Your task to perform on an android device: Open settings on Google Maps Image 0: 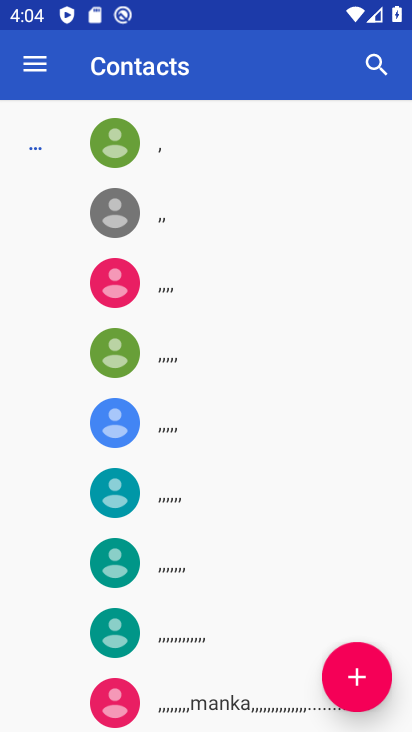
Step 0: press home button
Your task to perform on an android device: Open settings on Google Maps Image 1: 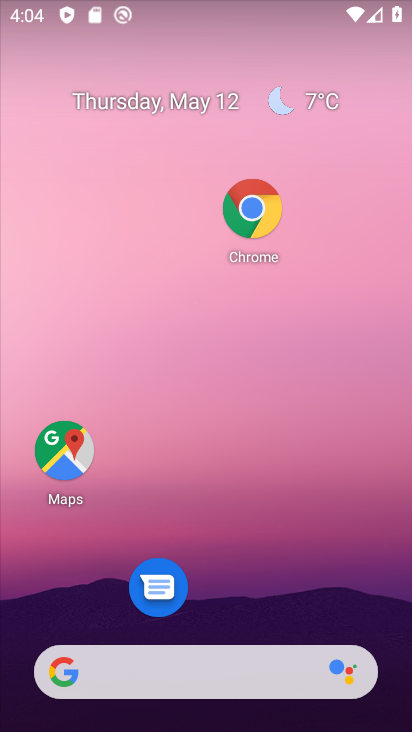
Step 1: click (74, 467)
Your task to perform on an android device: Open settings on Google Maps Image 2: 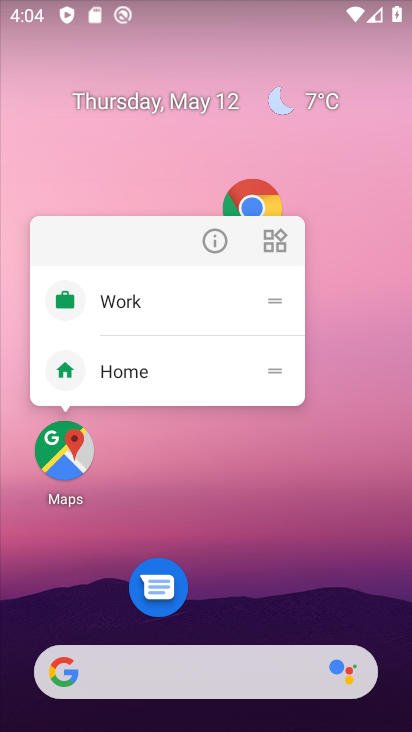
Step 2: click (67, 467)
Your task to perform on an android device: Open settings on Google Maps Image 3: 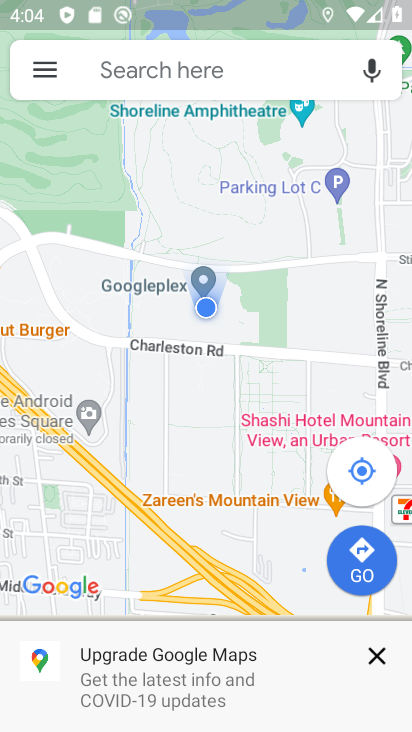
Step 3: click (36, 69)
Your task to perform on an android device: Open settings on Google Maps Image 4: 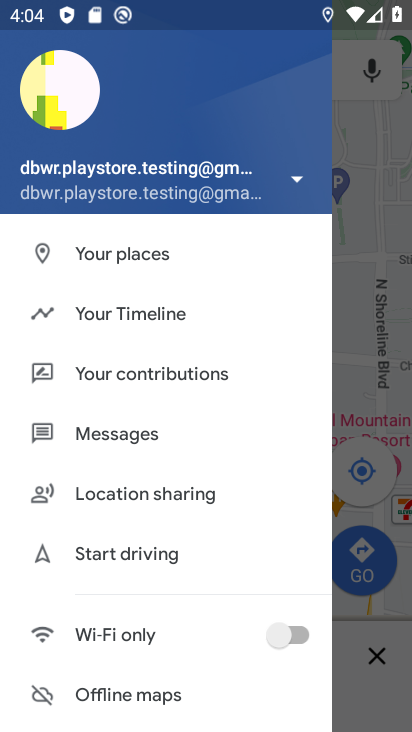
Step 4: drag from (119, 669) to (175, 367)
Your task to perform on an android device: Open settings on Google Maps Image 5: 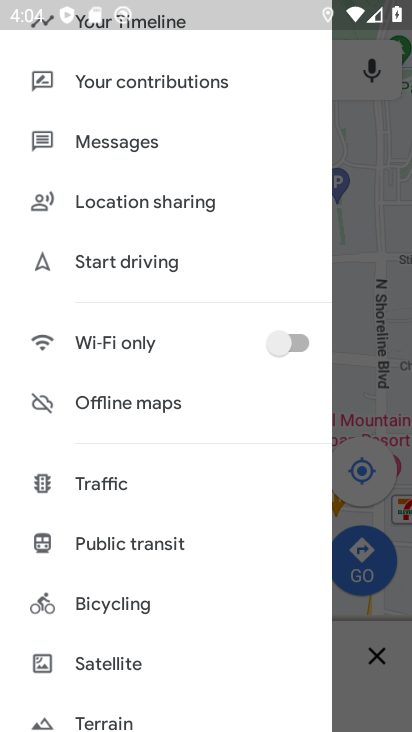
Step 5: drag from (117, 688) to (135, 360)
Your task to perform on an android device: Open settings on Google Maps Image 6: 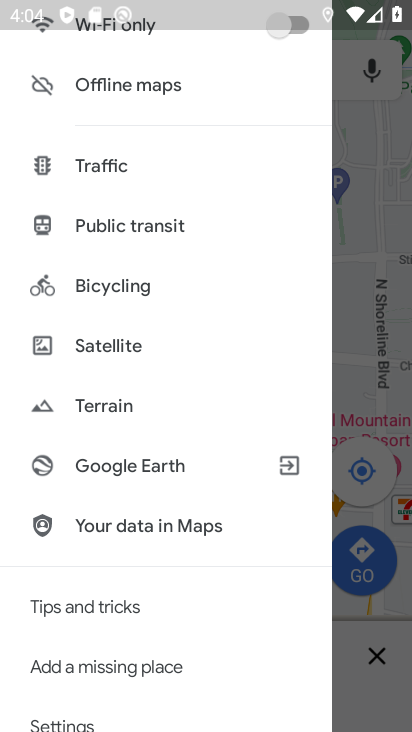
Step 6: drag from (121, 688) to (157, 386)
Your task to perform on an android device: Open settings on Google Maps Image 7: 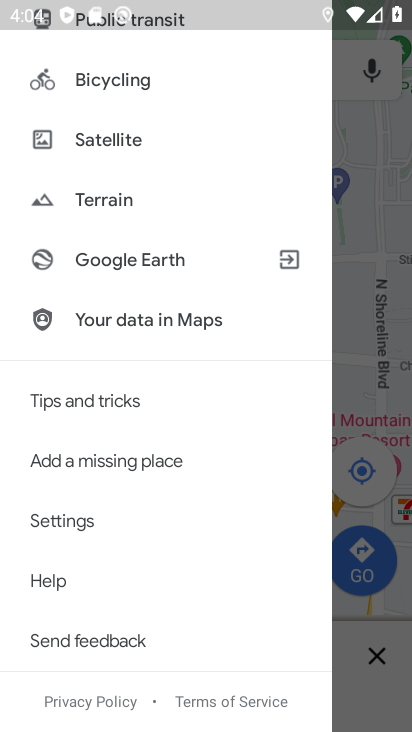
Step 7: click (62, 518)
Your task to perform on an android device: Open settings on Google Maps Image 8: 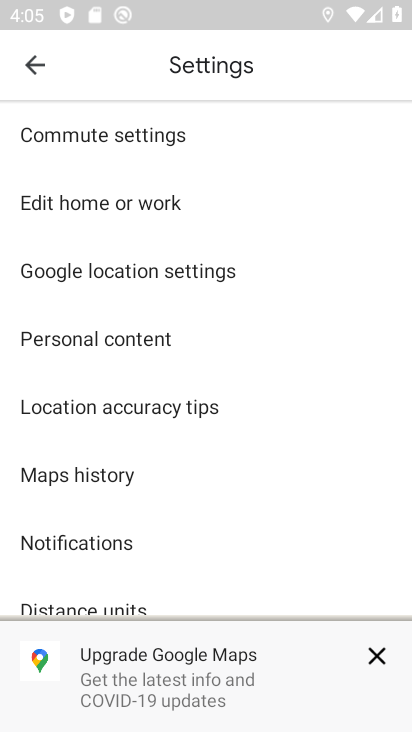
Step 8: click (379, 662)
Your task to perform on an android device: Open settings on Google Maps Image 9: 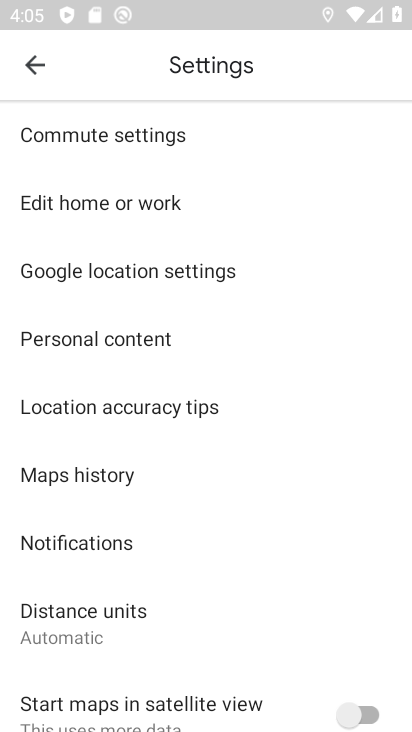
Step 9: task complete